Your task to perform on an android device: toggle translation in the chrome app Image 0: 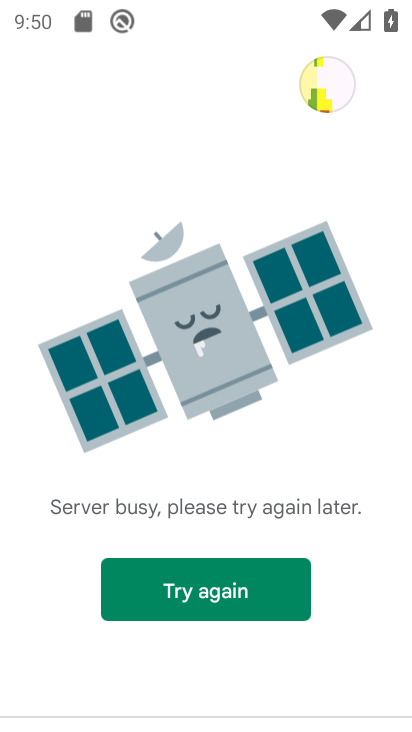
Step 0: press home button
Your task to perform on an android device: toggle translation in the chrome app Image 1: 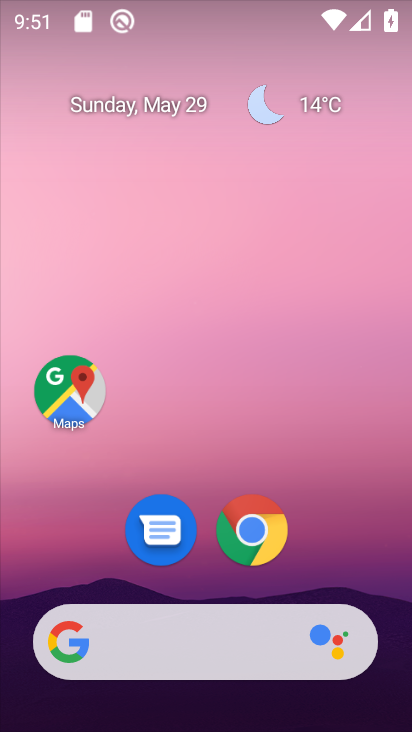
Step 1: click (240, 530)
Your task to perform on an android device: toggle translation in the chrome app Image 2: 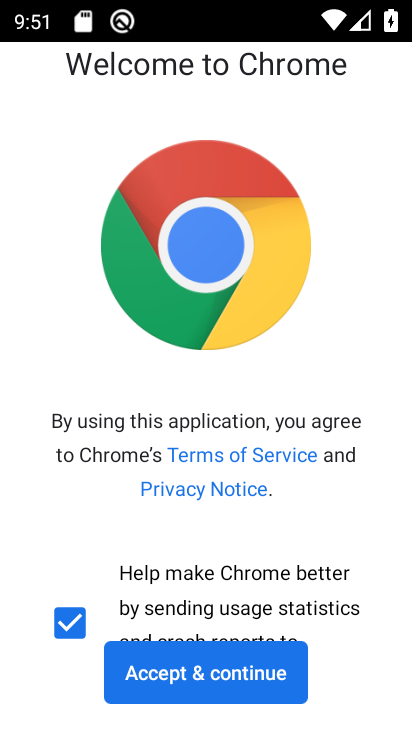
Step 2: click (179, 680)
Your task to perform on an android device: toggle translation in the chrome app Image 3: 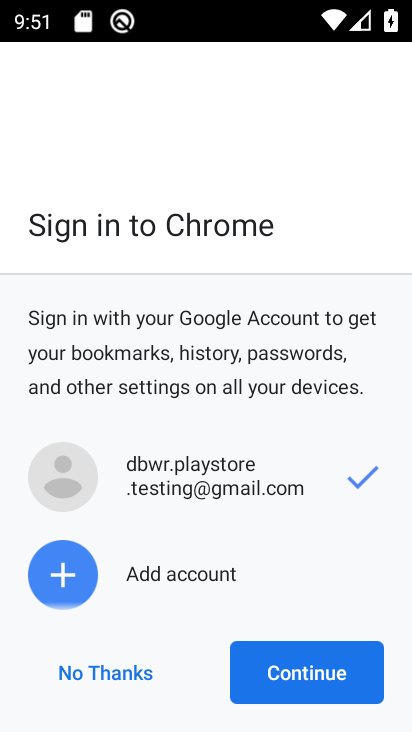
Step 3: click (286, 682)
Your task to perform on an android device: toggle translation in the chrome app Image 4: 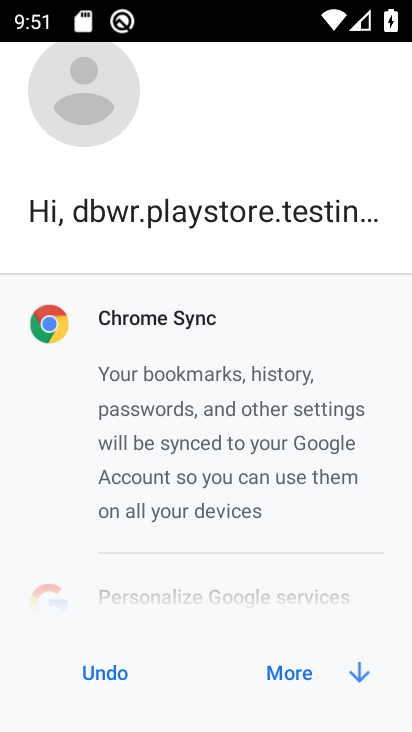
Step 4: click (281, 658)
Your task to perform on an android device: toggle translation in the chrome app Image 5: 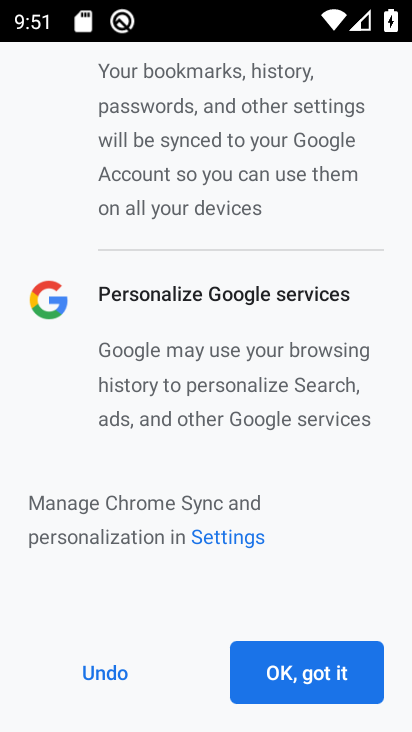
Step 5: click (281, 658)
Your task to perform on an android device: toggle translation in the chrome app Image 6: 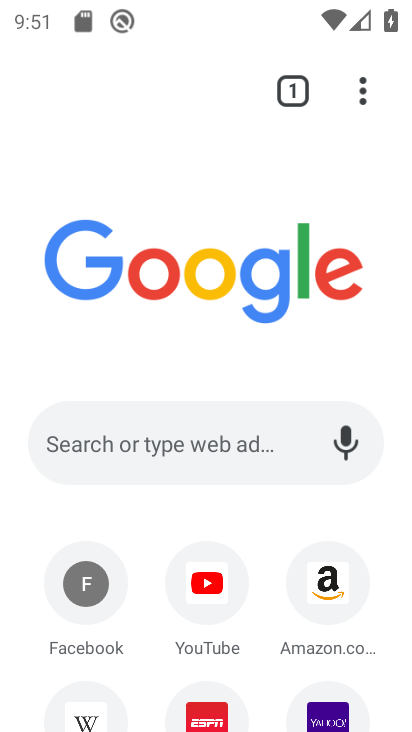
Step 6: drag from (357, 91) to (137, 556)
Your task to perform on an android device: toggle translation in the chrome app Image 7: 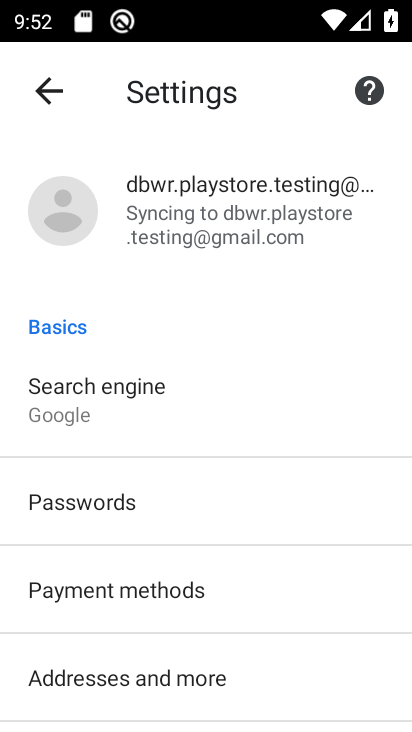
Step 7: drag from (113, 629) to (128, 35)
Your task to perform on an android device: toggle translation in the chrome app Image 8: 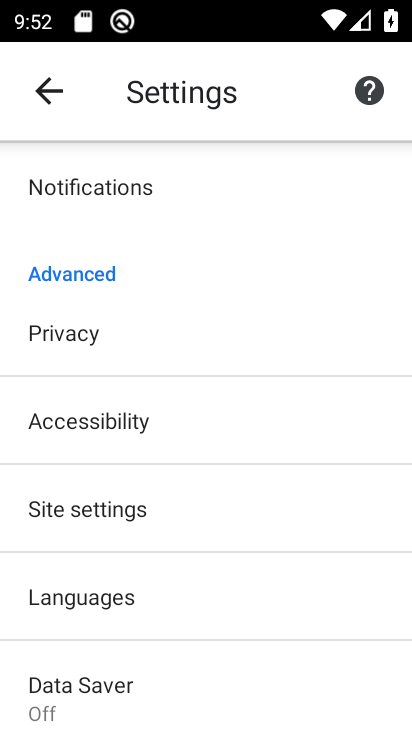
Step 8: click (98, 589)
Your task to perform on an android device: toggle translation in the chrome app Image 9: 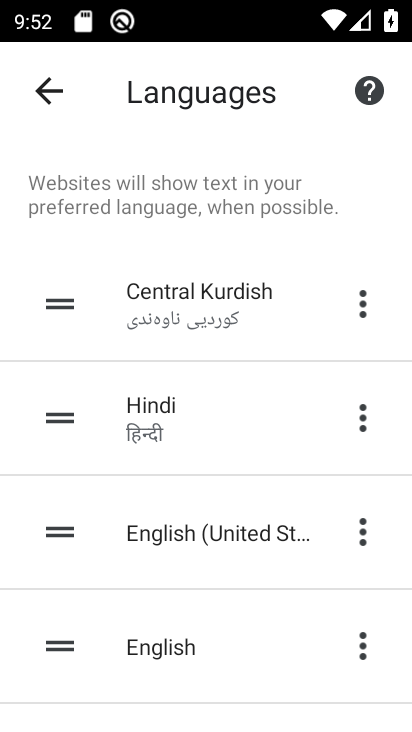
Step 9: drag from (206, 619) to (204, 41)
Your task to perform on an android device: toggle translation in the chrome app Image 10: 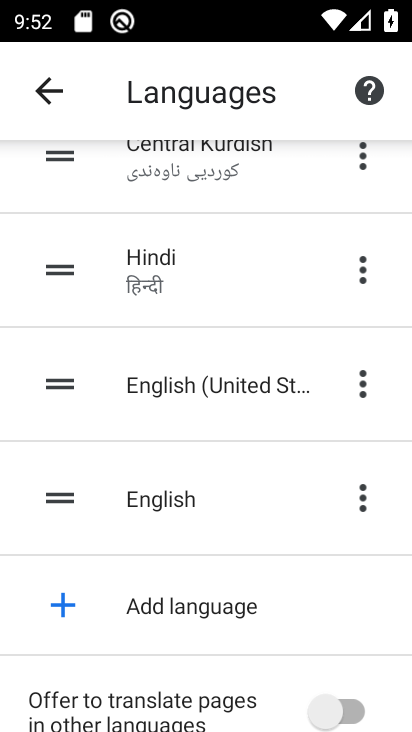
Step 10: click (352, 720)
Your task to perform on an android device: toggle translation in the chrome app Image 11: 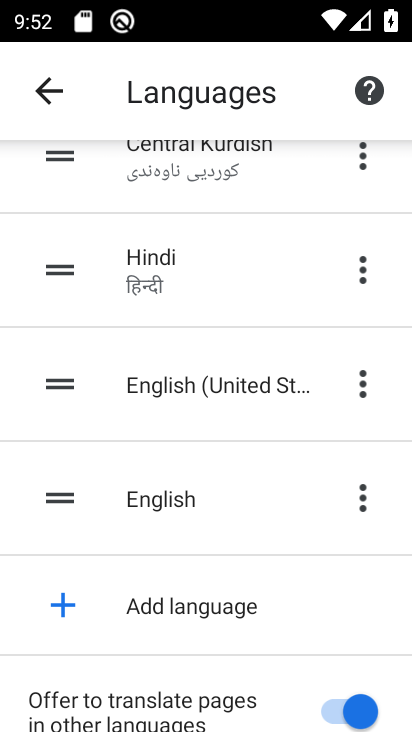
Step 11: task complete